Your task to perform on an android device: Open Maps and search for coffee Image 0: 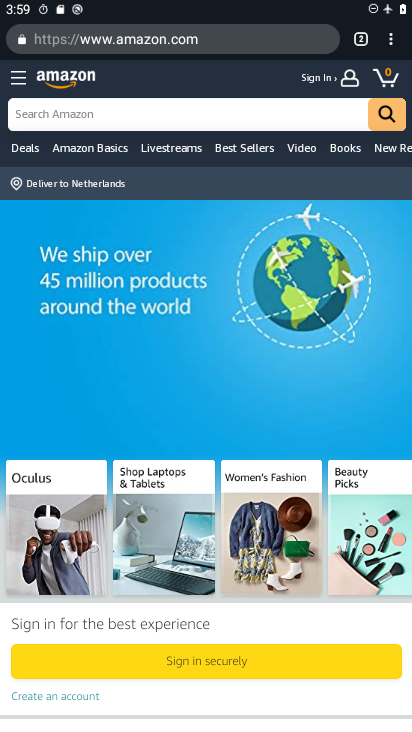
Step 0: press home button
Your task to perform on an android device: Open Maps and search for coffee Image 1: 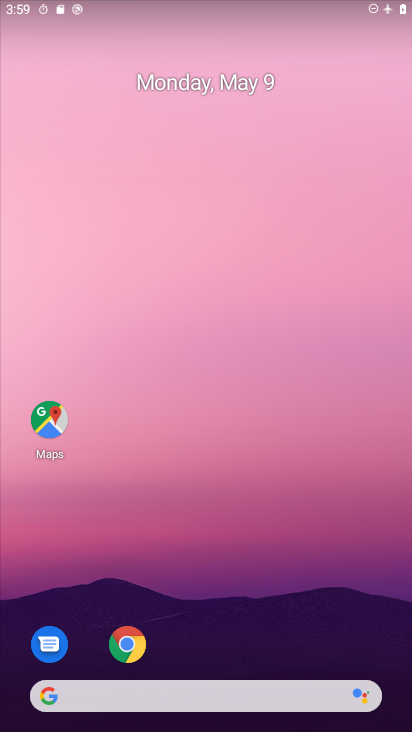
Step 1: click (197, 704)
Your task to perform on an android device: Open Maps and search for coffee Image 2: 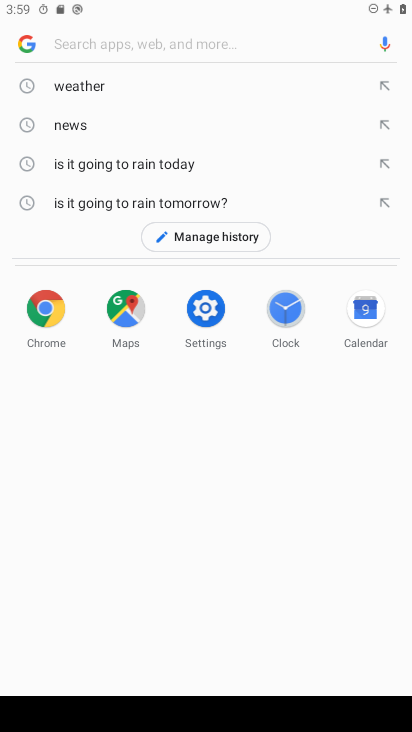
Step 2: click (93, 88)
Your task to perform on an android device: Open Maps and search for coffee Image 3: 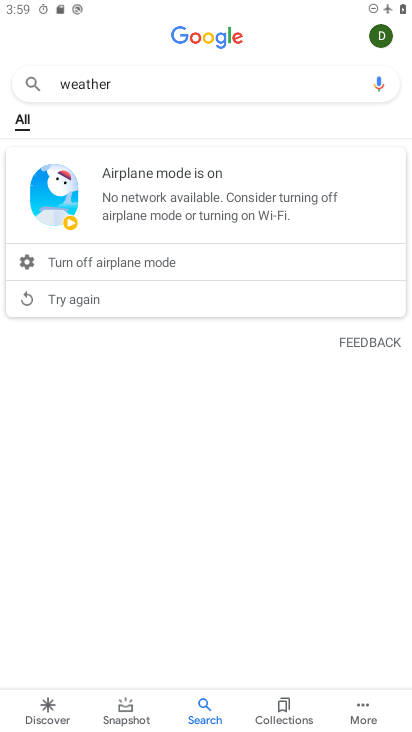
Step 3: task complete